Your task to perform on an android device: What's the weather? Image 0: 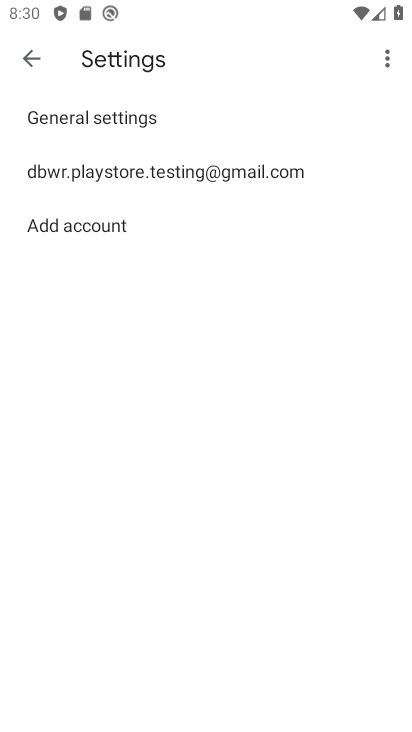
Step 0: press home button
Your task to perform on an android device: What's the weather? Image 1: 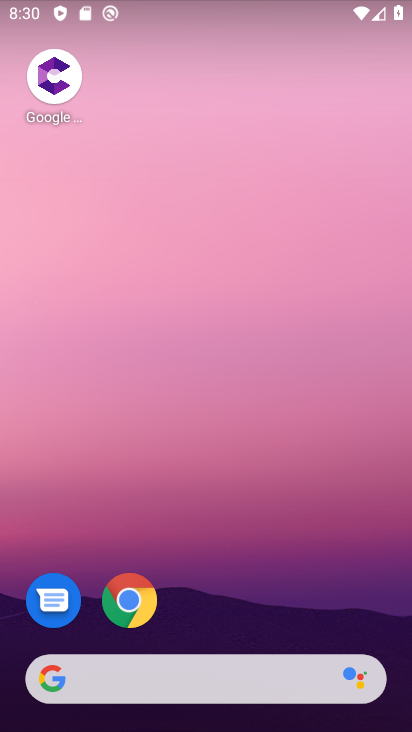
Step 1: drag from (253, 527) to (126, 54)
Your task to perform on an android device: What's the weather? Image 2: 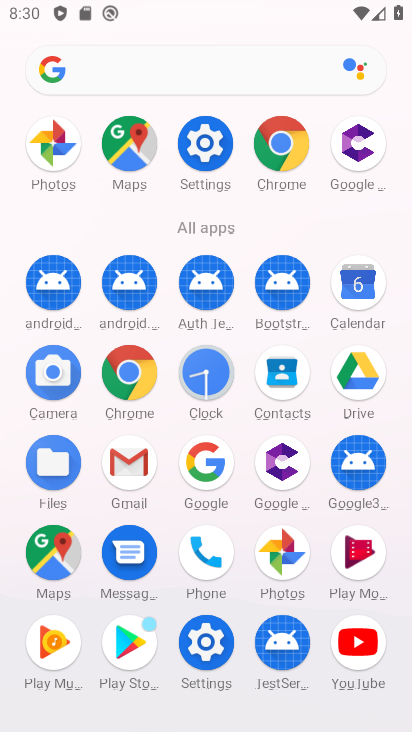
Step 2: click (200, 470)
Your task to perform on an android device: What's the weather? Image 3: 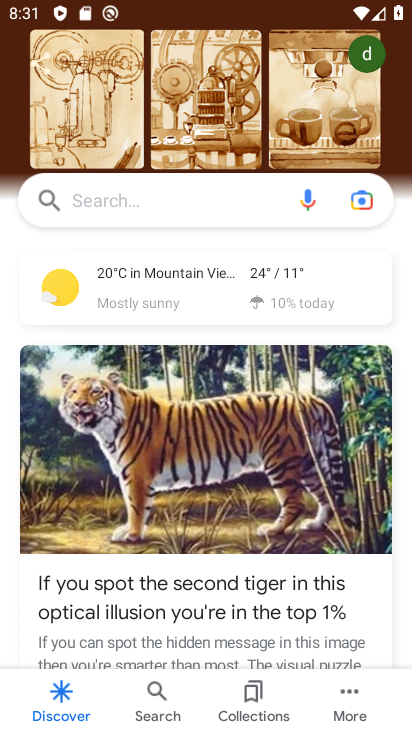
Step 3: click (195, 209)
Your task to perform on an android device: What's the weather? Image 4: 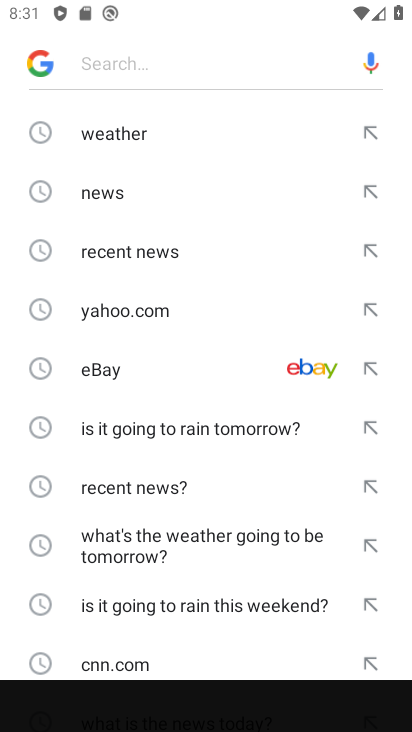
Step 4: click (172, 136)
Your task to perform on an android device: What's the weather? Image 5: 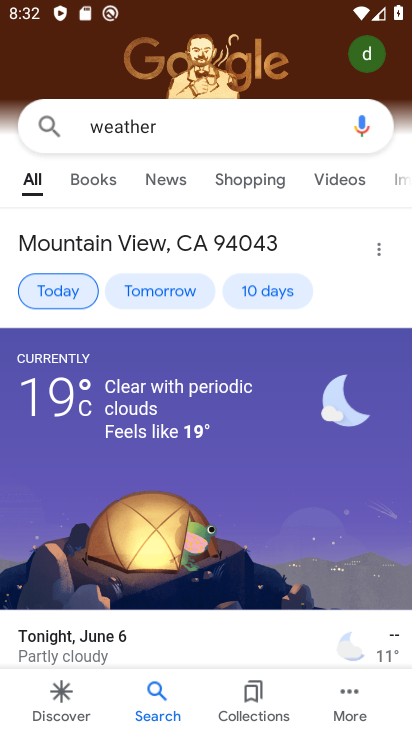
Step 5: task complete